Your task to perform on an android device: Search for "razer kraken" on ebay.com, select the first entry, add it to the cart, then select checkout. Image 0: 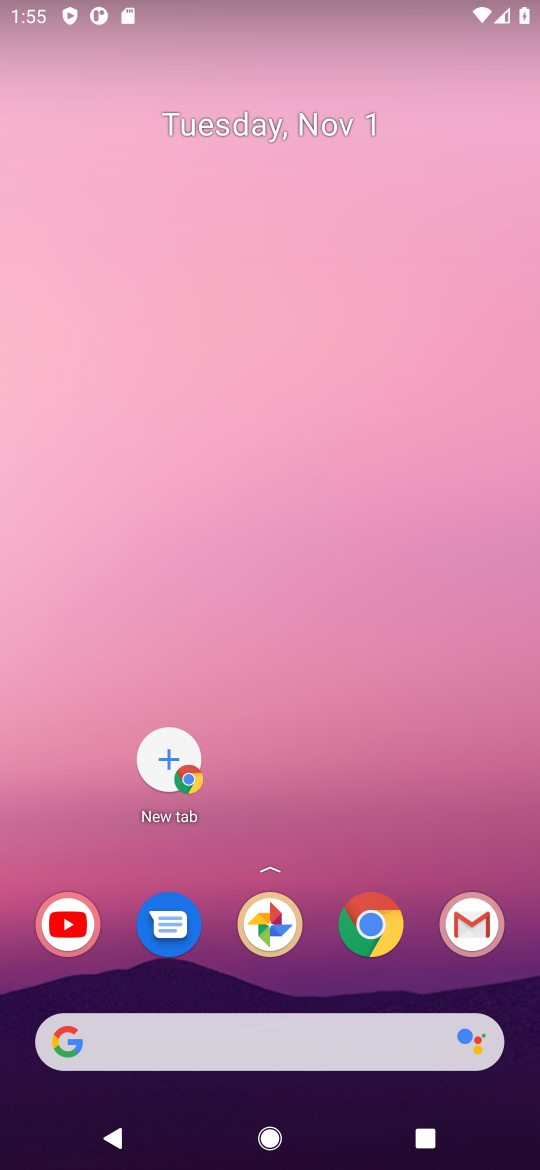
Step 0: click (372, 940)
Your task to perform on an android device: Search for "razer kraken" on ebay.com, select the first entry, add it to the cart, then select checkout. Image 1: 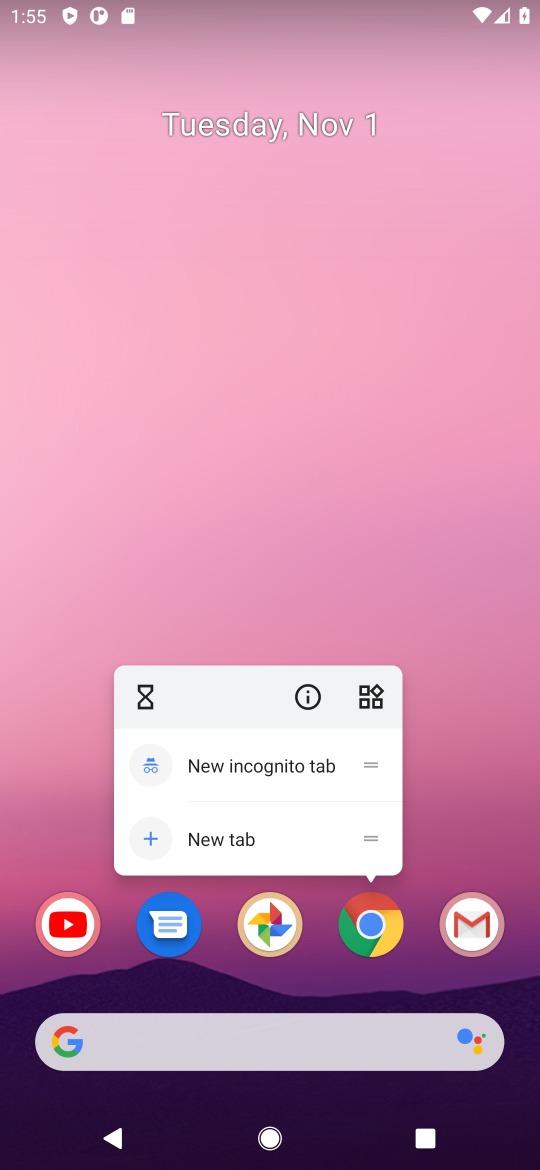
Step 1: click (369, 938)
Your task to perform on an android device: Search for "razer kraken" on ebay.com, select the first entry, add it to the cart, then select checkout. Image 2: 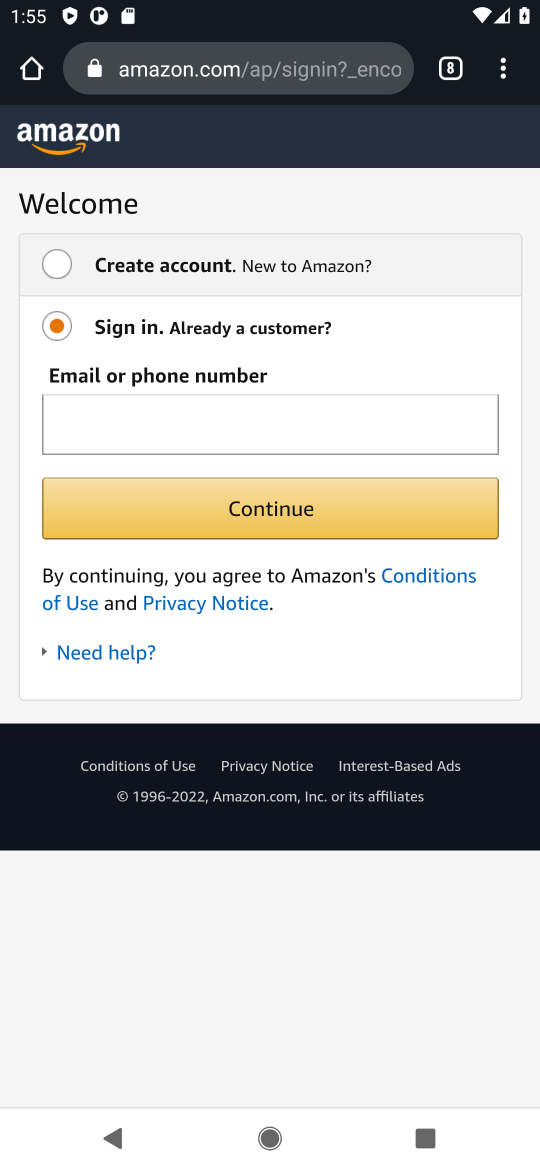
Step 2: click (165, 64)
Your task to perform on an android device: Search for "razer kraken" on ebay.com, select the first entry, add it to the cart, then select checkout. Image 3: 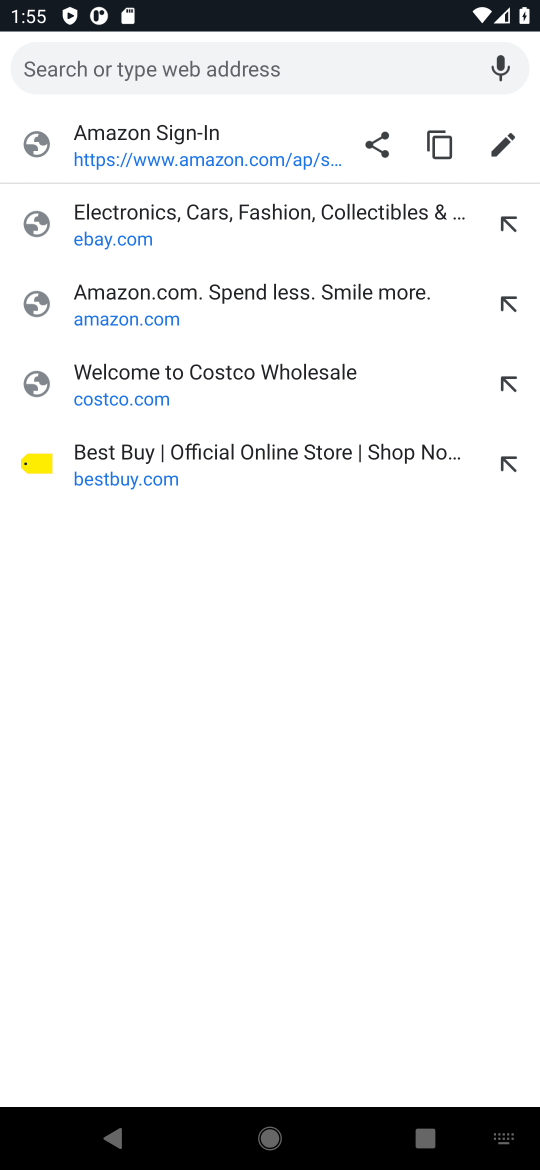
Step 3: type "ebay.com"
Your task to perform on an android device: Search for "razer kraken" on ebay.com, select the first entry, add it to the cart, then select checkout. Image 4: 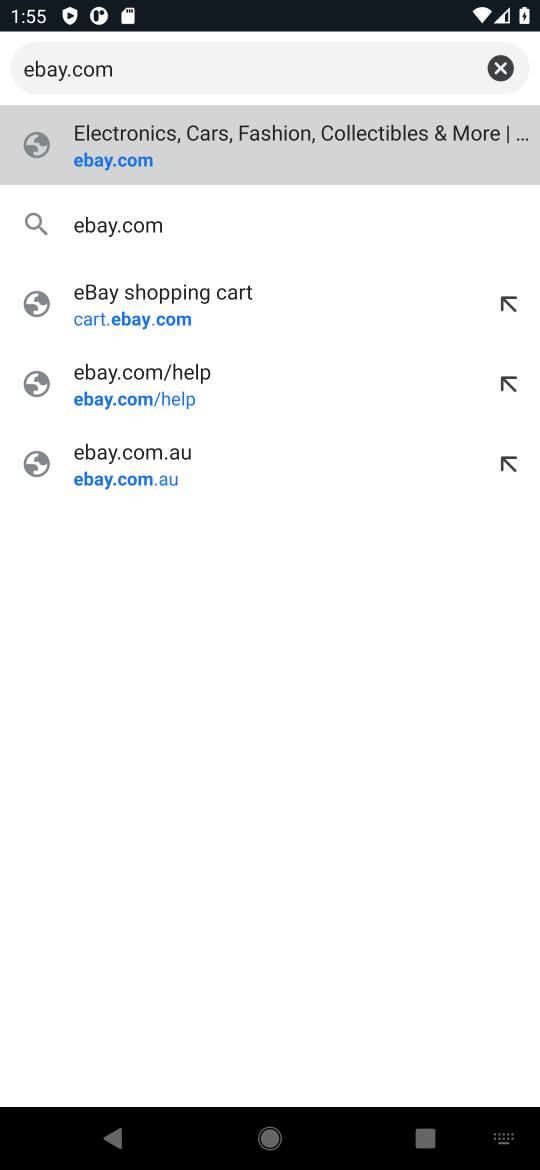
Step 4: type ""
Your task to perform on an android device: Search for "razer kraken" on ebay.com, select the first entry, add it to the cart, then select checkout. Image 5: 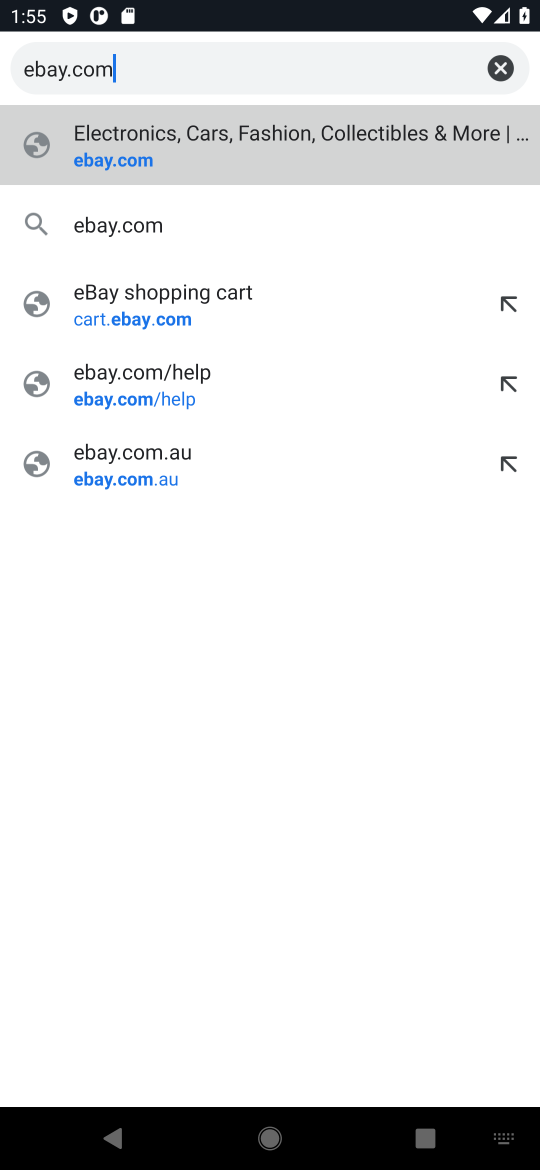
Step 5: click (107, 391)
Your task to perform on an android device: Search for "razer kraken" on ebay.com, select the first entry, add it to the cart, then select checkout. Image 6: 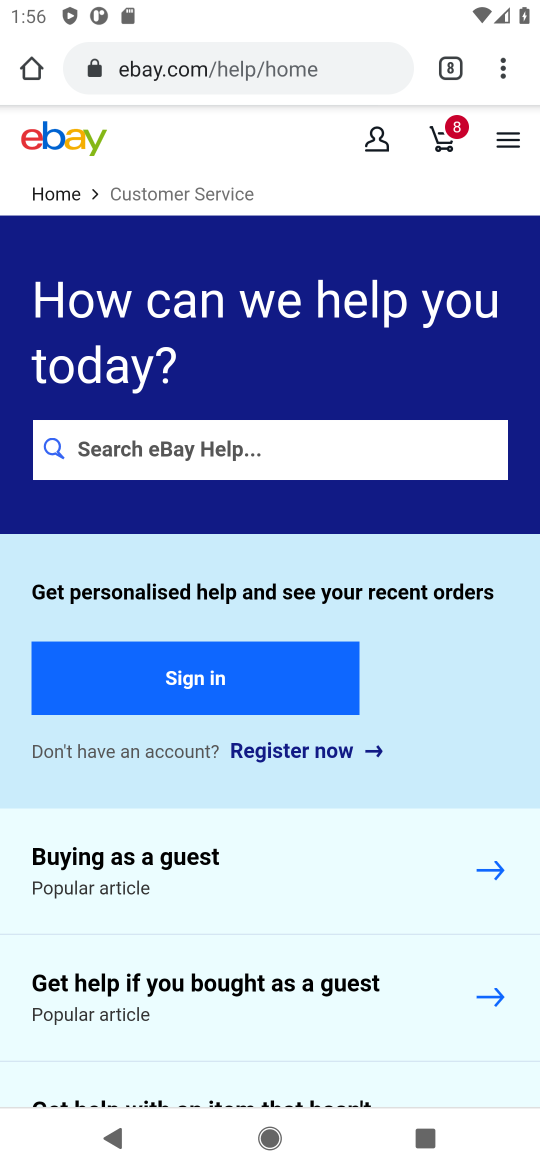
Step 6: click (153, 463)
Your task to perform on an android device: Search for "razer kraken" on ebay.com, select the first entry, add it to the cart, then select checkout. Image 7: 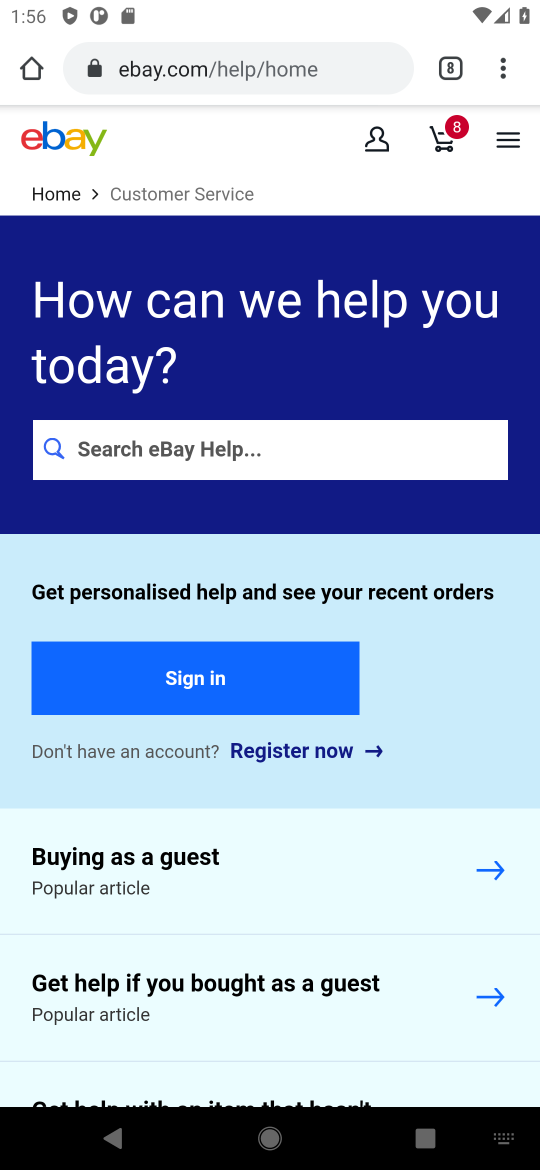
Step 7: type "ebay.com"
Your task to perform on an android device: Search for "razer kraken" on ebay.com, select the first entry, add it to the cart, then select checkout. Image 8: 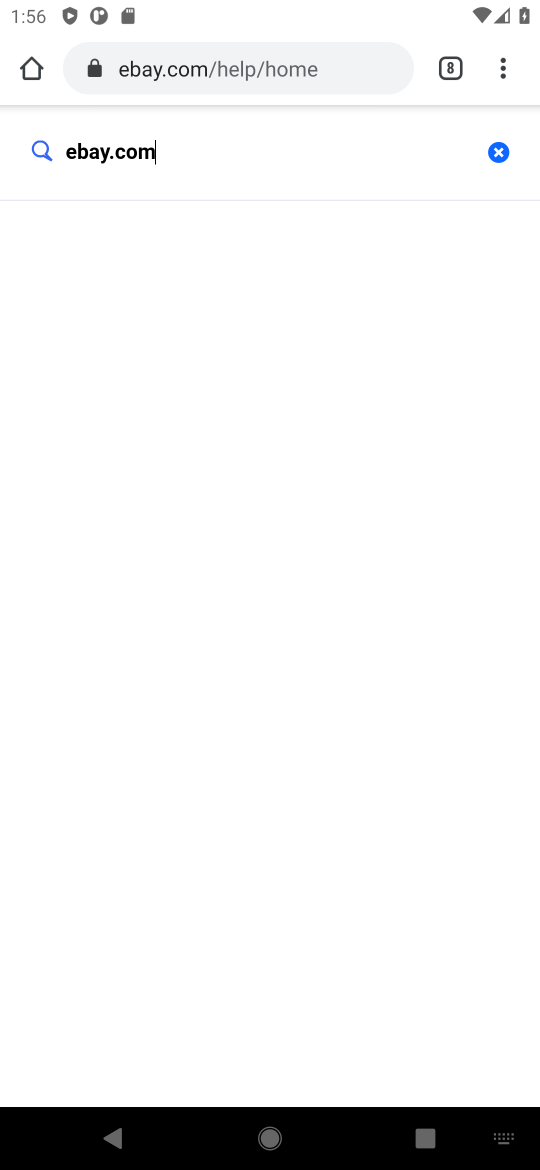
Step 8: type ""
Your task to perform on an android device: Search for "razer kraken" on ebay.com, select the first entry, add it to the cart, then select checkout. Image 9: 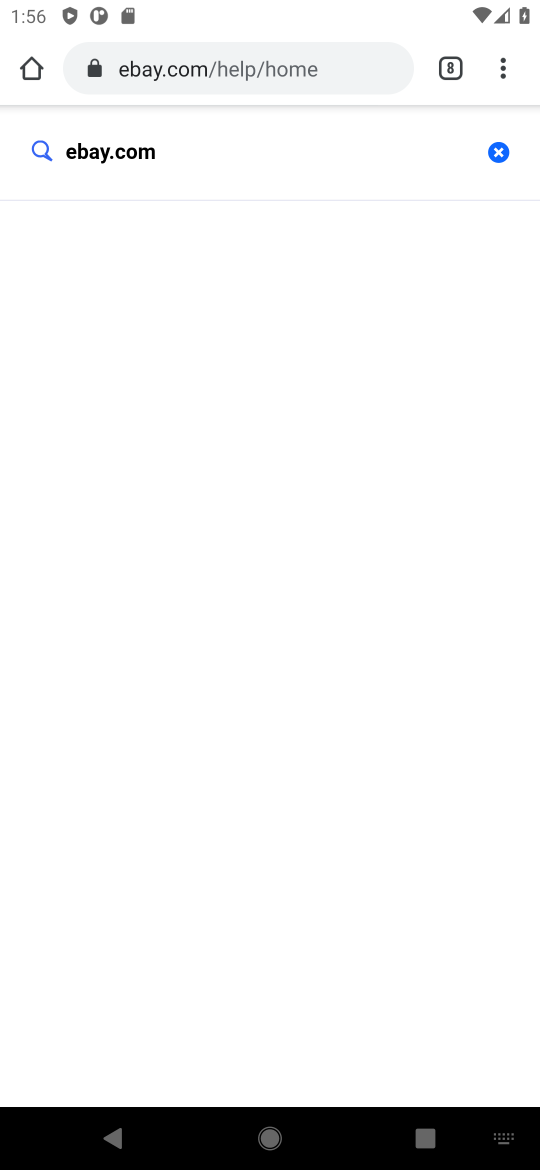
Step 9: click (40, 149)
Your task to perform on an android device: Search for "razer kraken" on ebay.com, select the first entry, add it to the cart, then select checkout. Image 10: 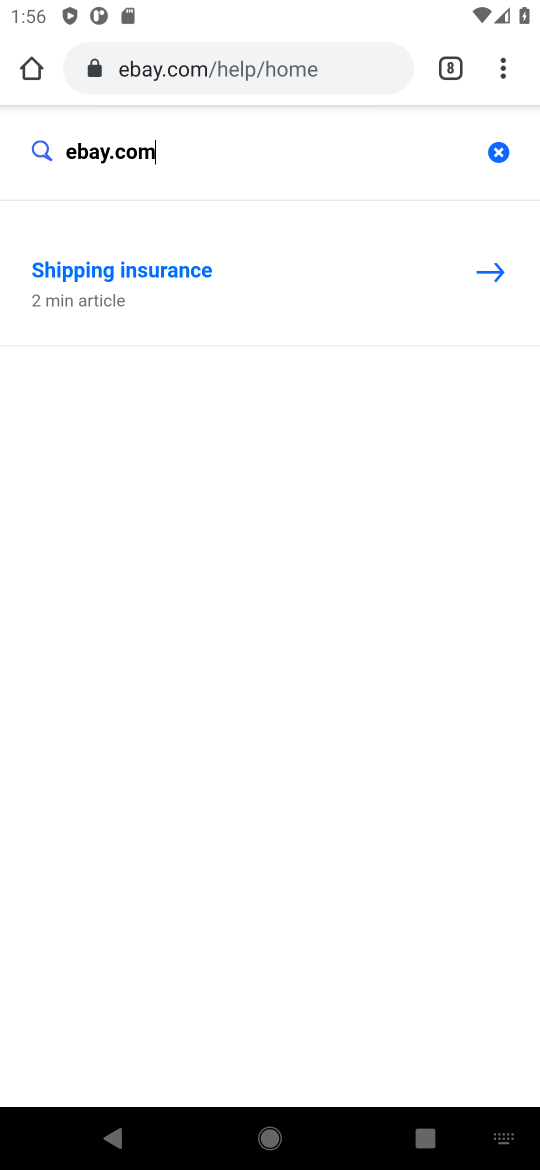
Step 10: click (503, 146)
Your task to perform on an android device: Search for "razer kraken" on ebay.com, select the first entry, add it to the cart, then select checkout. Image 11: 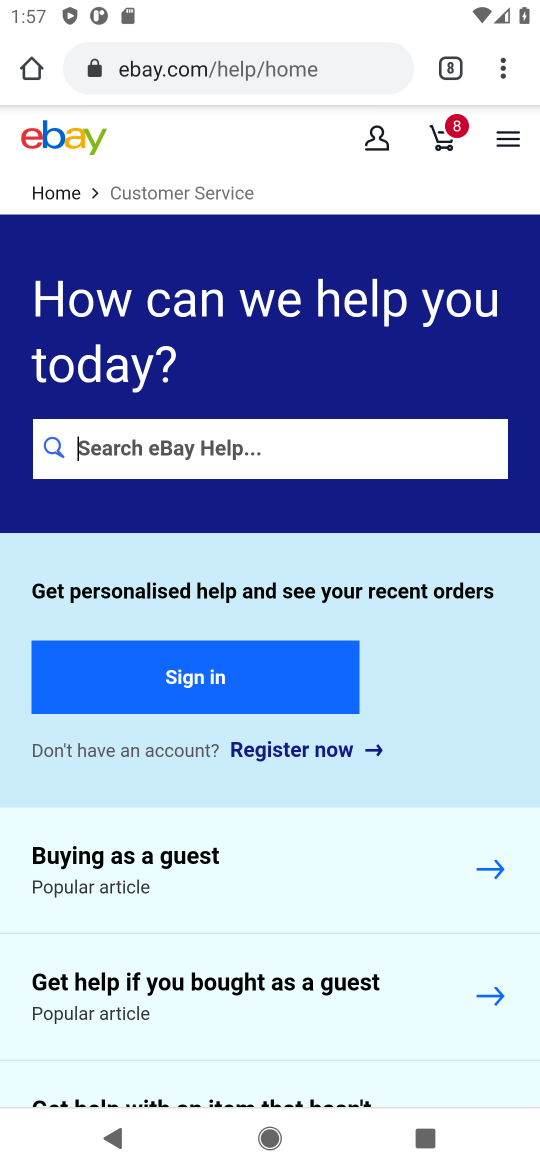
Step 11: drag from (369, 846) to (389, 149)
Your task to perform on an android device: Search for "razer kraken" on ebay.com, select the first entry, add it to the cart, then select checkout. Image 12: 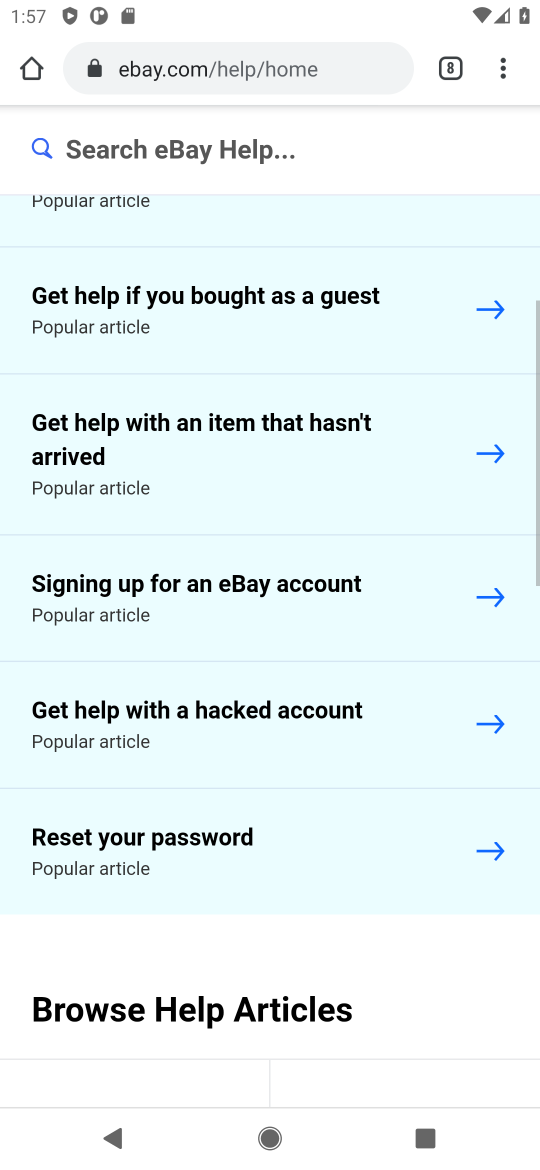
Step 12: drag from (337, 826) to (366, 308)
Your task to perform on an android device: Search for "razer kraken" on ebay.com, select the first entry, add it to the cart, then select checkout. Image 13: 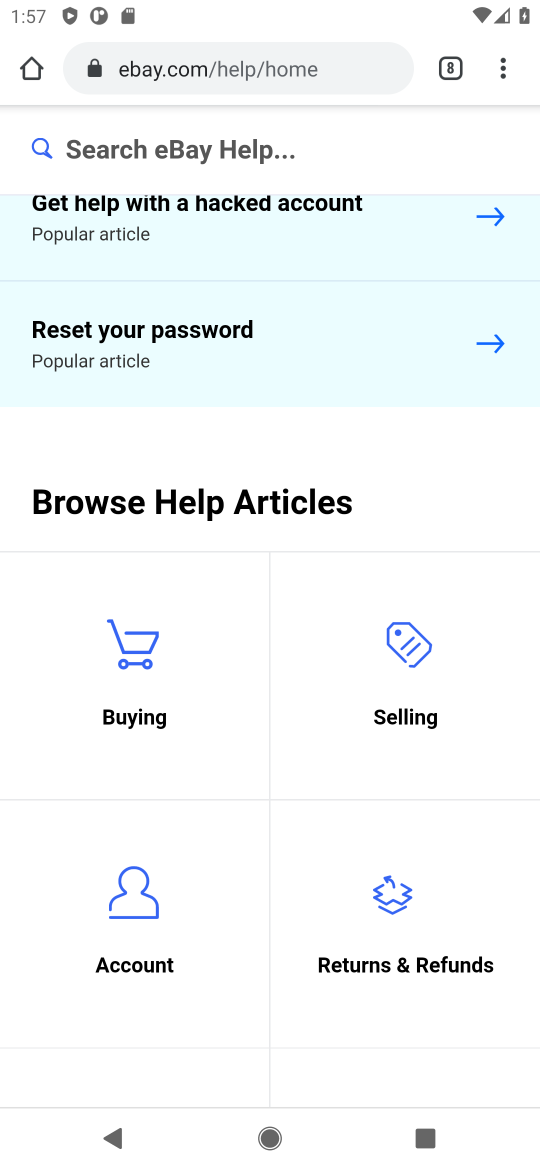
Step 13: press back button
Your task to perform on an android device: Search for "razer kraken" on ebay.com, select the first entry, add it to the cart, then select checkout. Image 14: 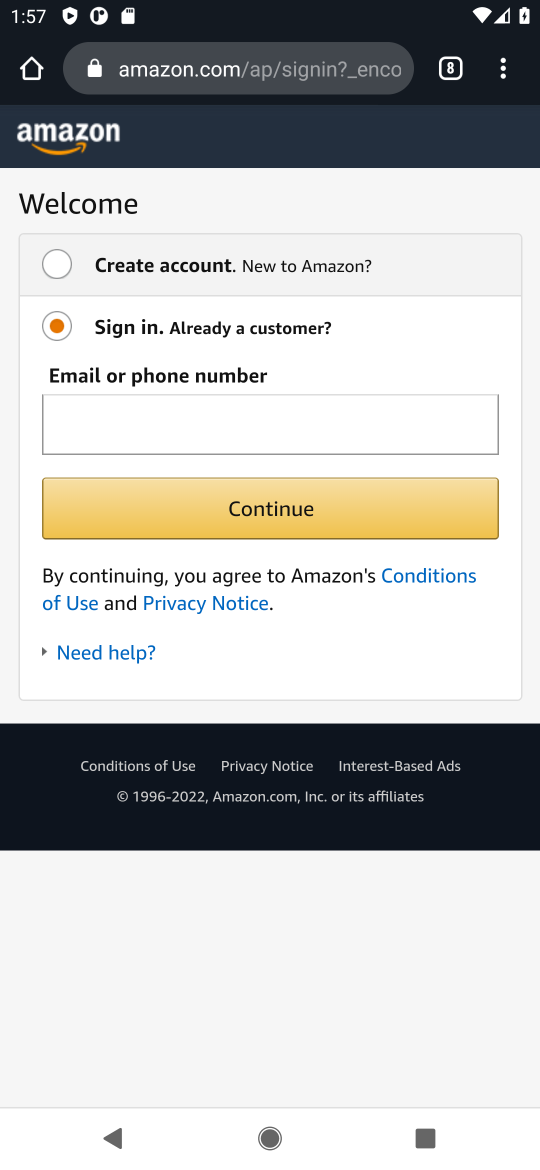
Step 14: press back button
Your task to perform on an android device: Search for "razer kraken" on ebay.com, select the first entry, add it to the cart, then select checkout. Image 15: 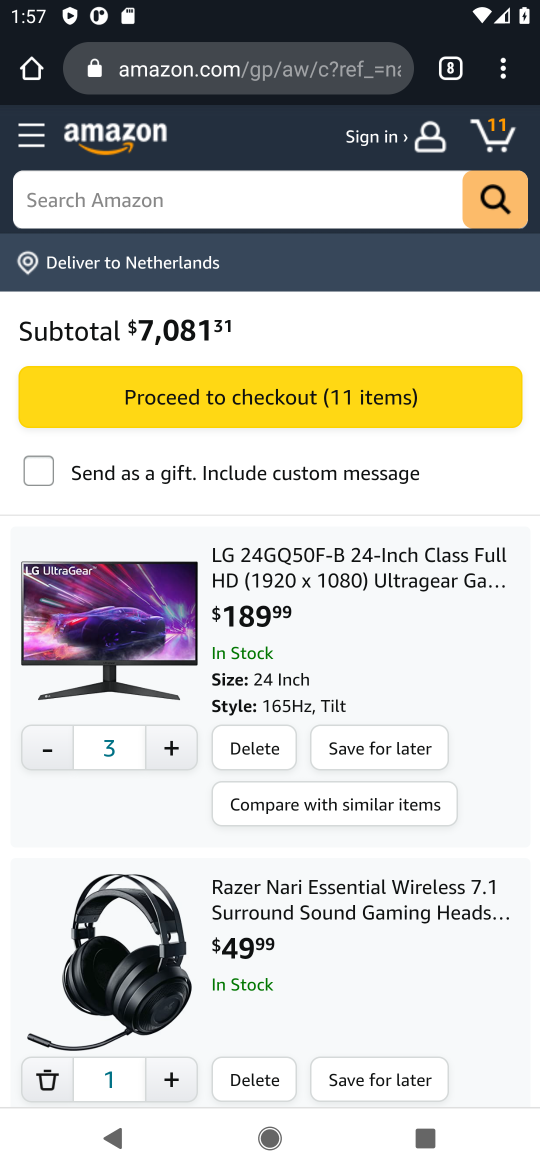
Step 15: click (242, 79)
Your task to perform on an android device: Search for "razer kraken" on ebay.com, select the first entry, add it to the cart, then select checkout. Image 16: 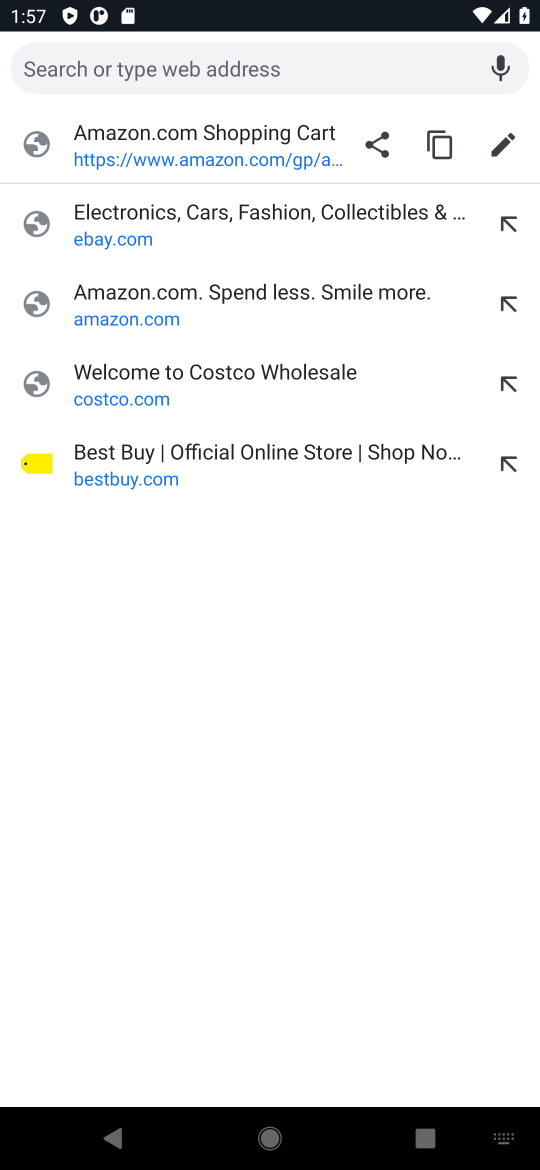
Step 16: click (139, 212)
Your task to perform on an android device: Search for "razer kraken" on ebay.com, select the first entry, add it to the cart, then select checkout. Image 17: 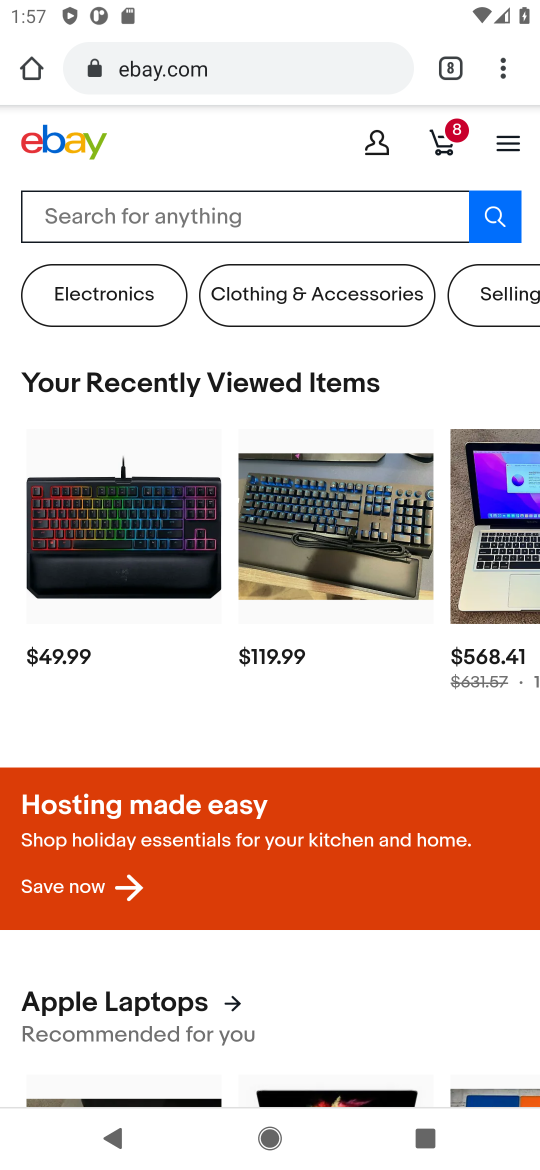
Step 17: click (110, 230)
Your task to perform on an android device: Search for "razer kraken" on ebay.com, select the first entry, add it to the cart, then select checkout. Image 18: 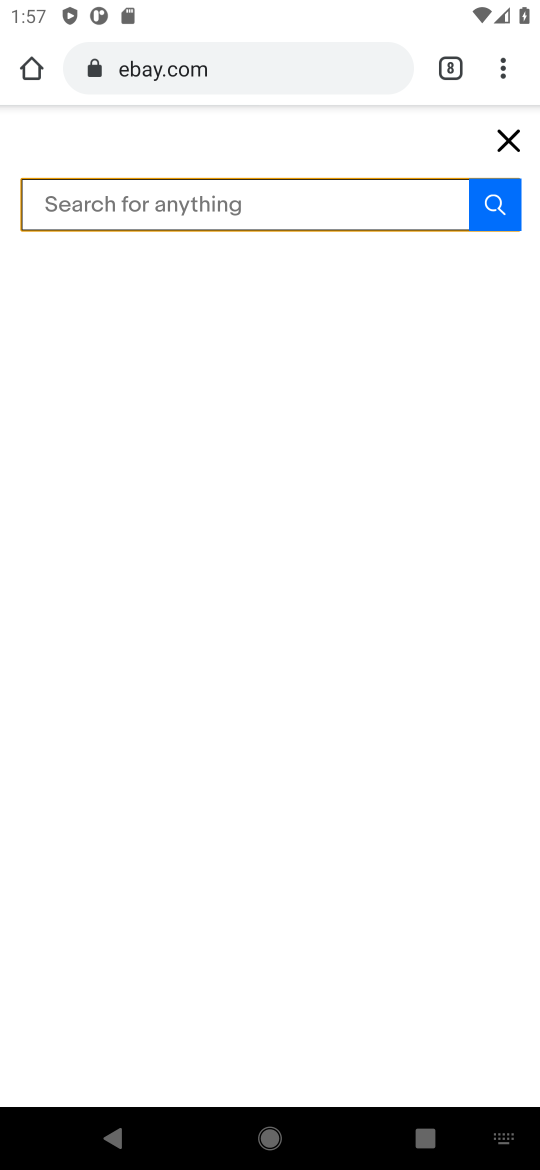
Step 18: type "razer kraken"
Your task to perform on an android device: Search for "razer kraken" on ebay.com, select the first entry, add it to the cart, then select checkout. Image 19: 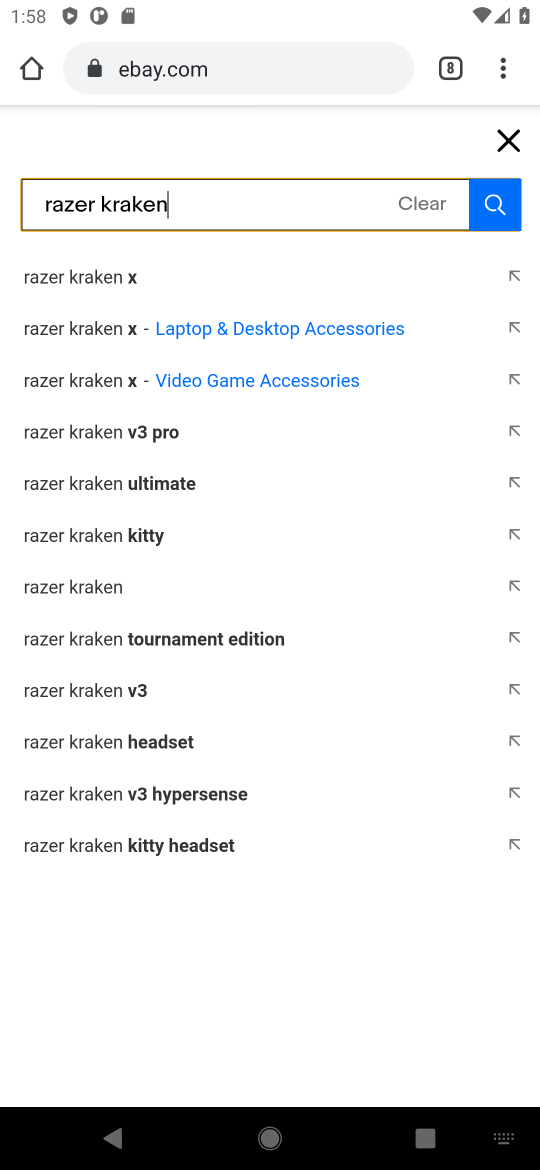
Step 19: click (87, 591)
Your task to perform on an android device: Search for "razer kraken" on ebay.com, select the first entry, add it to the cart, then select checkout. Image 20: 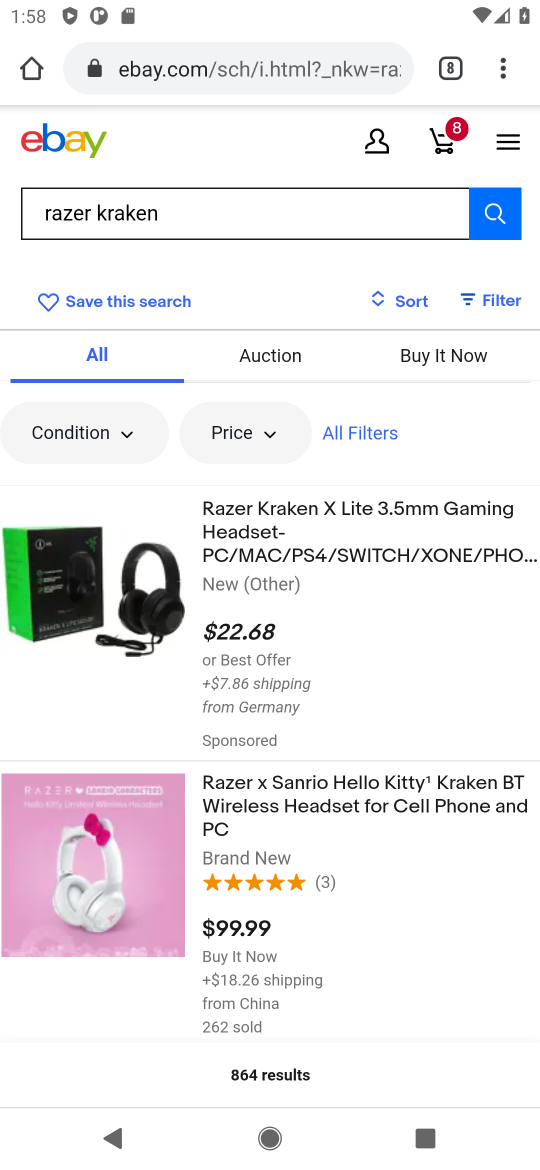
Step 20: click (144, 689)
Your task to perform on an android device: Search for "razer kraken" on ebay.com, select the first entry, add it to the cart, then select checkout. Image 21: 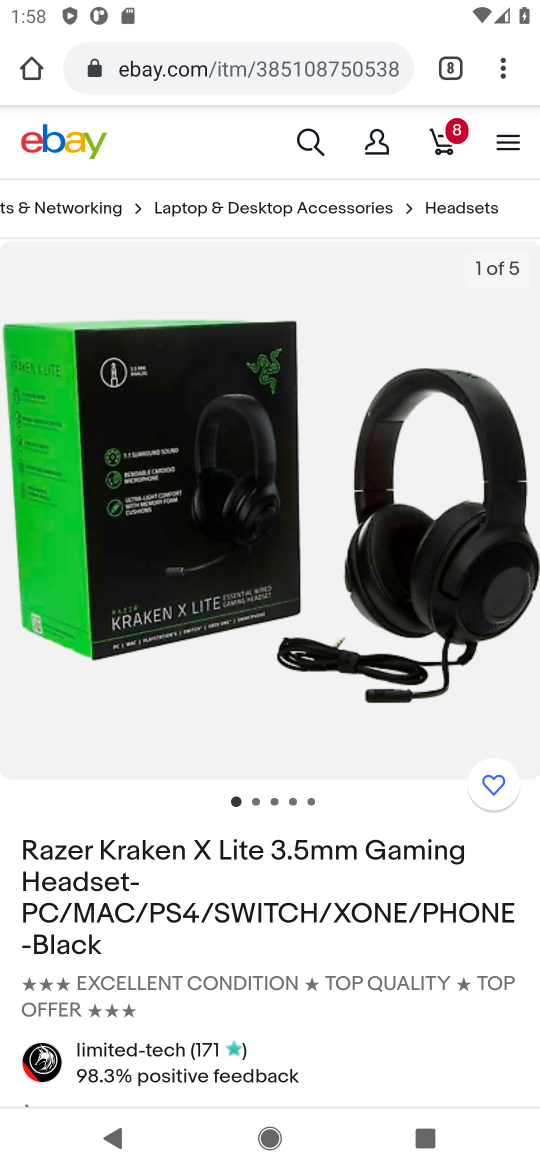
Step 21: drag from (279, 838) to (294, 444)
Your task to perform on an android device: Search for "razer kraken" on ebay.com, select the first entry, add it to the cart, then select checkout. Image 22: 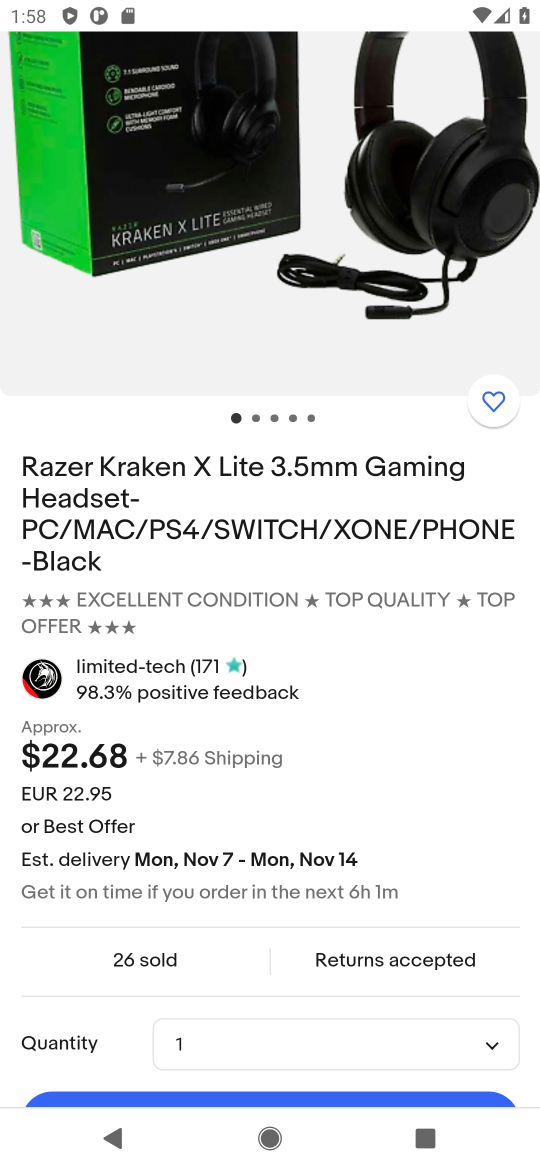
Step 22: drag from (288, 920) to (285, 615)
Your task to perform on an android device: Search for "razer kraken" on ebay.com, select the first entry, add it to the cart, then select checkout. Image 23: 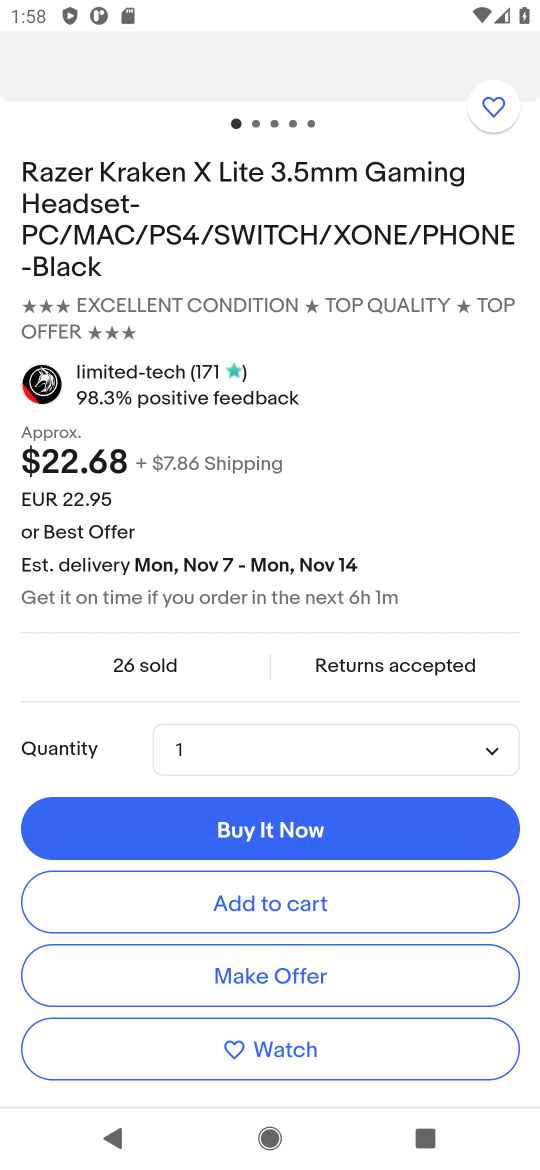
Step 23: click (320, 921)
Your task to perform on an android device: Search for "razer kraken" on ebay.com, select the first entry, add it to the cart, then select checkout. Image 24: 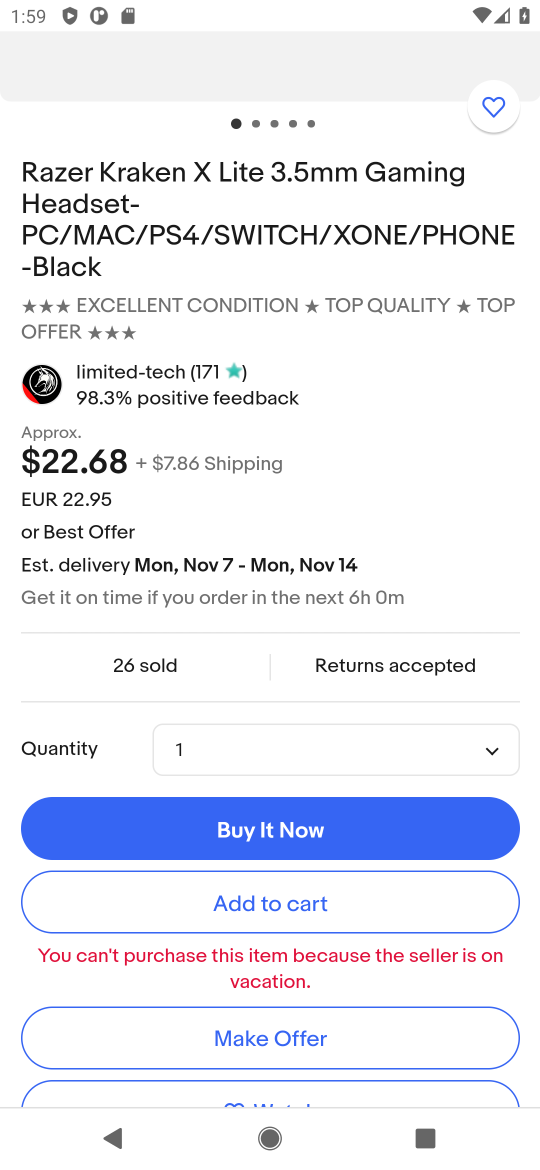
Step 24: press back button
Your task to perform on an android device: Search for "razer kraken" on ebay.com, select the first entry, add it to the cart, then select checkout. Image 25: 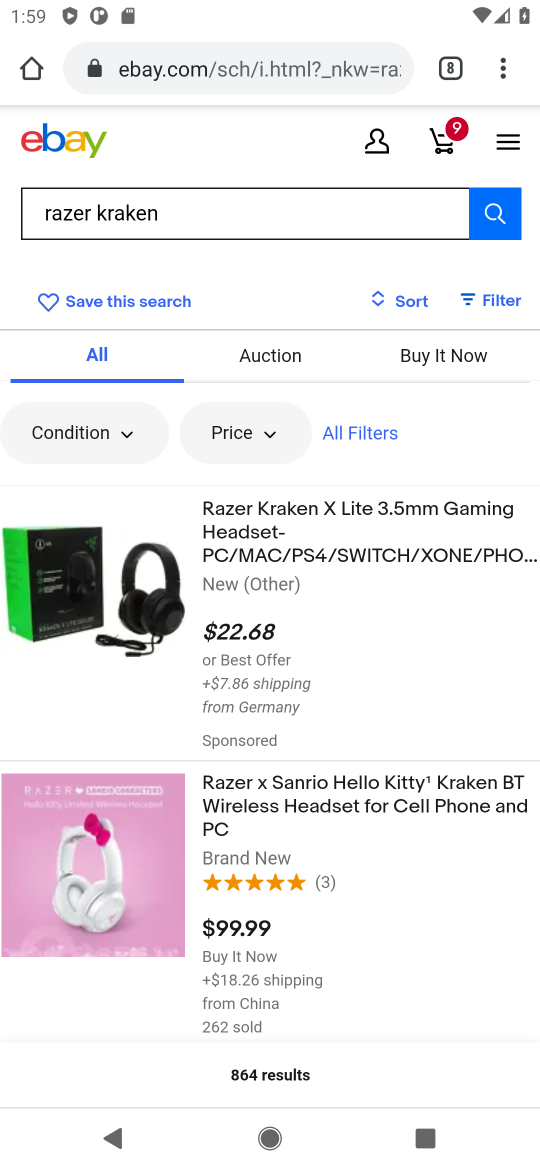
Step 25: click (115, 873)
Your task to perform on an android device: Search for "razer kraken" on ebay.com, select the first entry, add it to the cart, then select checkout. Image 26: 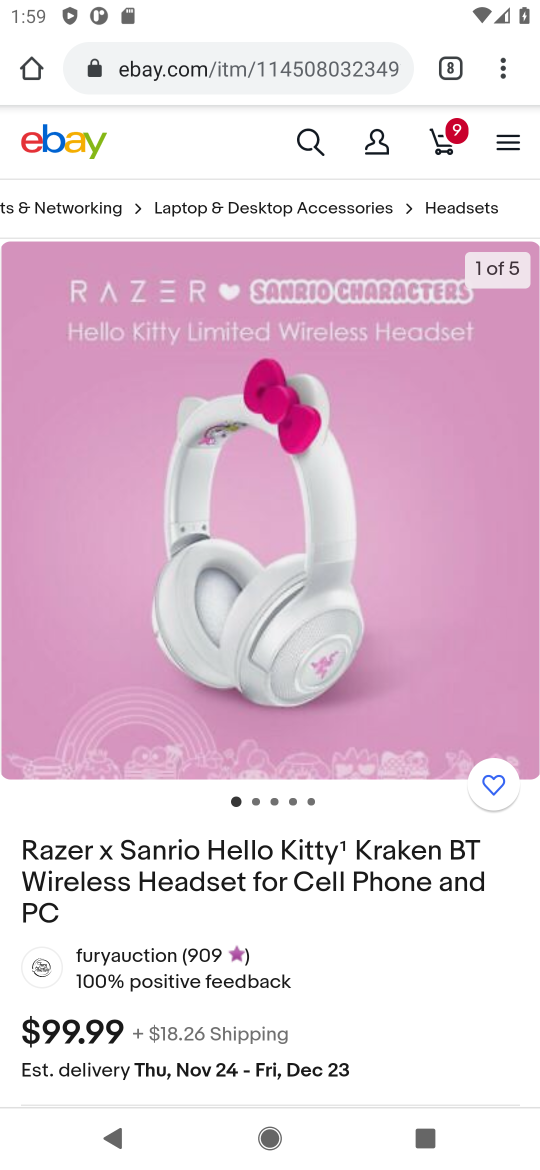
Step 26: drag from (313, 841) to (320, 394)
Your task to perform on an android device: Search for "razer kraken" on ebay.com, select the first entry, add it to the cart, then select checkout. Image 27: 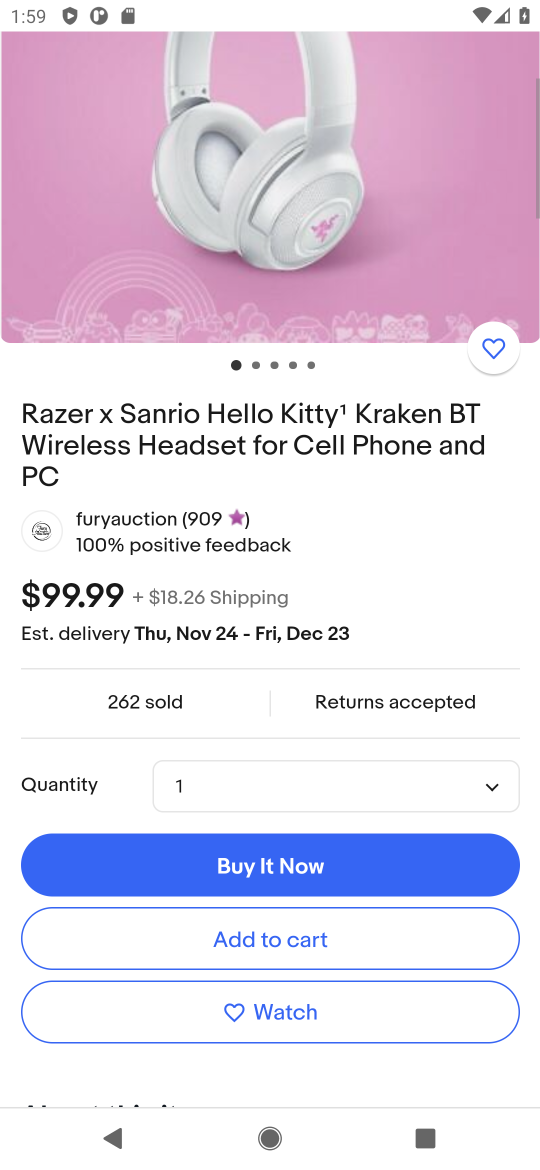
Step 27: drag from (144, 546) to (226, 256)
Your task to perform on an android device: Search for "razer kraken" on ebay.com, select the first entry, add it to the cart, then select checkout. Image 28: 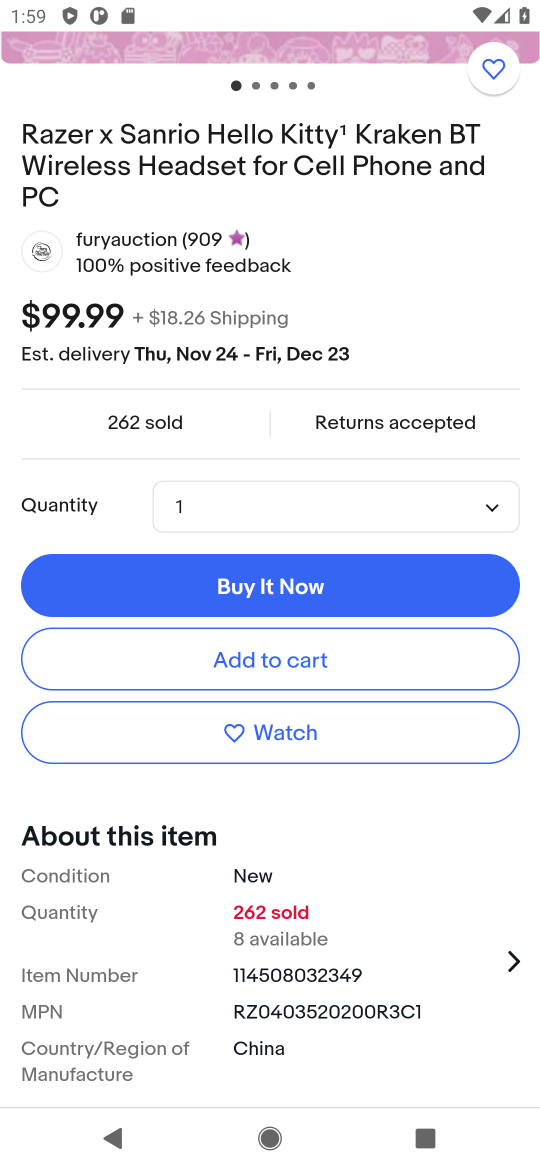
Step 28: click (252, 675)
Your task to perform on an android device: Search for "razer kraken" on ebay.com, select the first entry, add it to the cart, then select checkout. Image 29: 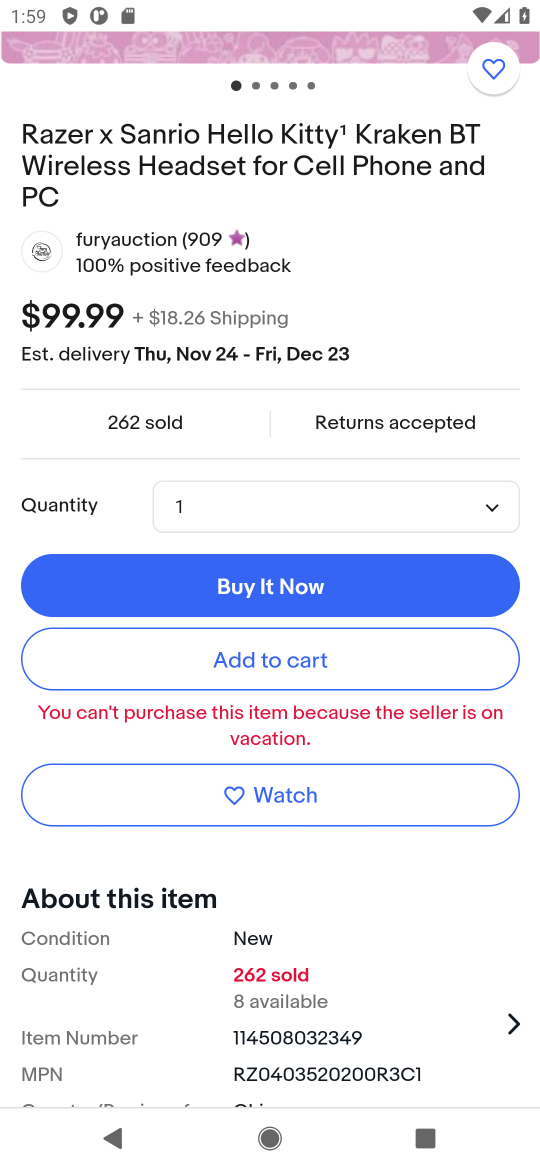
Step 29: task complete